Your task to perform on an android device: Open CNN.com Image 0: 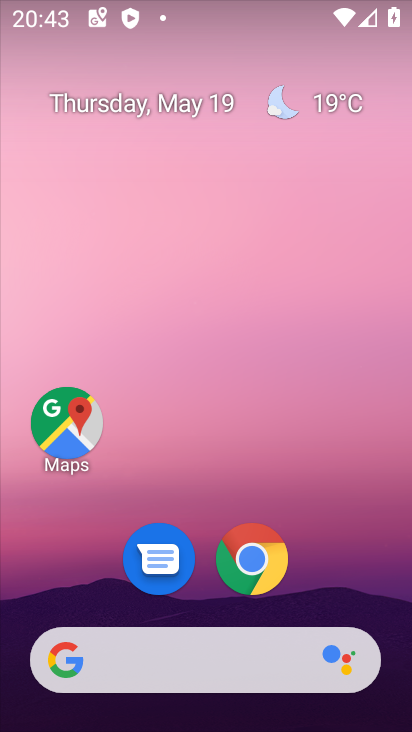
Step 0: drag from (208, 640) to (264, 217)
Your task to perform on an android device: Open CNN.com Image 1: 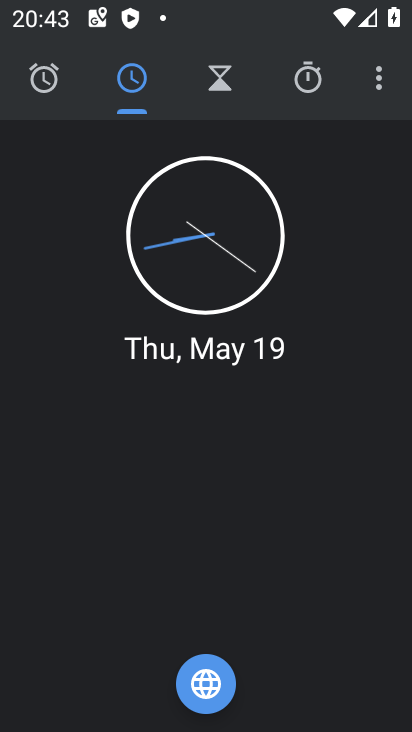
Step 1: press home button
Your task to perform on an android device: Open CNN.com Image 2: 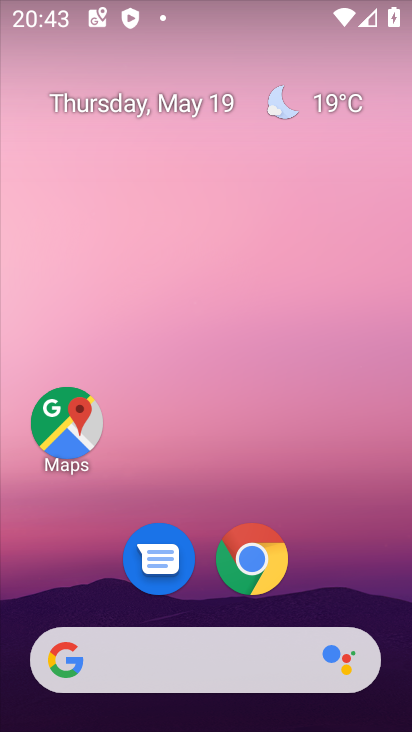
Step 2: click (247, 549)
Your task to perform on an android device: Open CNN.com Image 3: 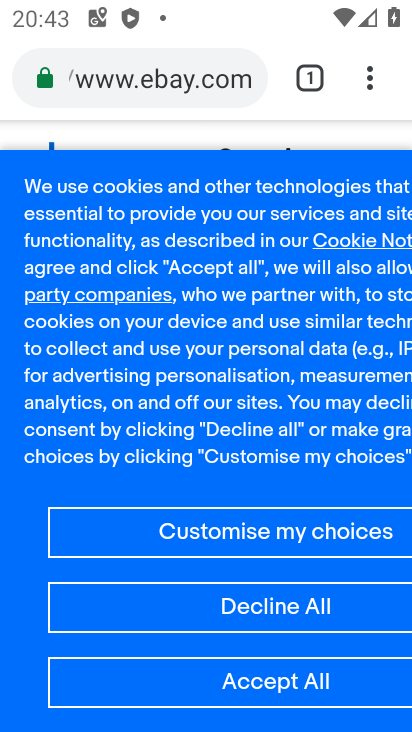
Step 3: click (168, 76)
Your task to perform on an android device: Open CNN.com Image 4: 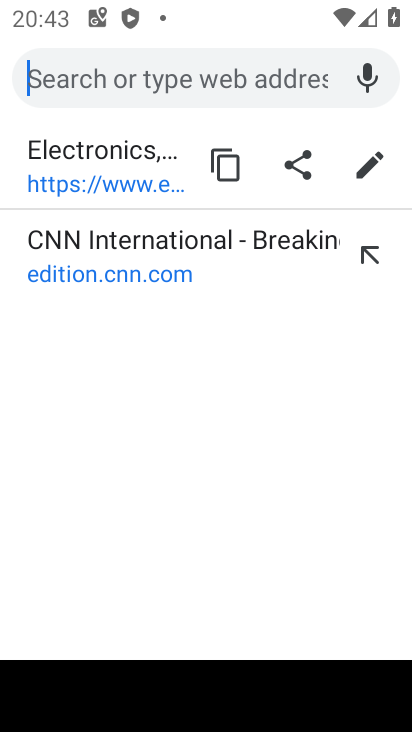
Step 4: click (204, 246)
Your task to perform on an android device: Open CNN.com Image 5: 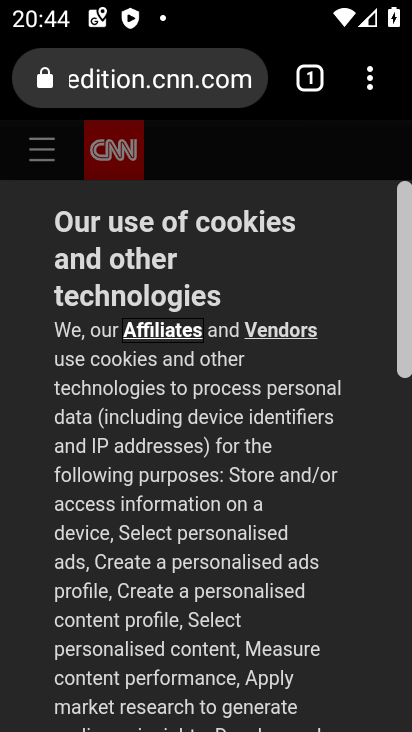
Step 5: task complete